Your task to perform on an android device: toggle improve location accuracy Image 0: 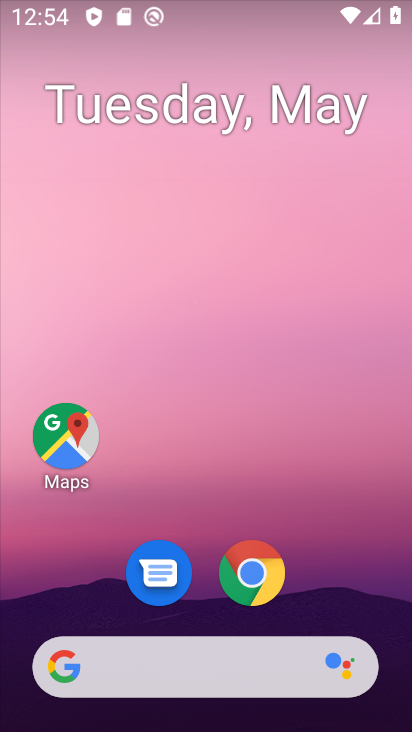
Step 0: drag from (350, 552) to (329, 55)
Your task to perform on an android device: toggle improve location accuracy Image 1: 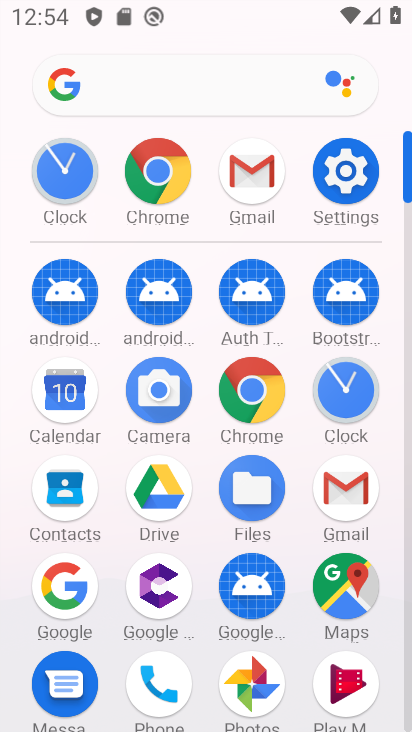
Step 1: click (360, 170)
Your task to perform on an android device: toggle improve location accuracy Image 2: 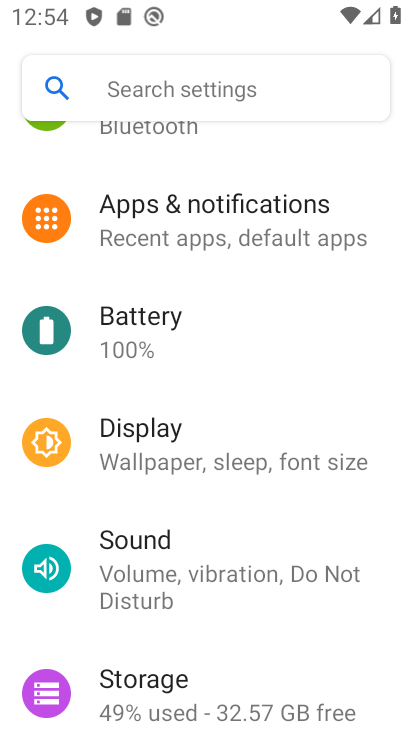
Step 2: drag from (304, 598) to (200, 120)
Your task to perform on an android device: toggle improve location accuracy Image 3: 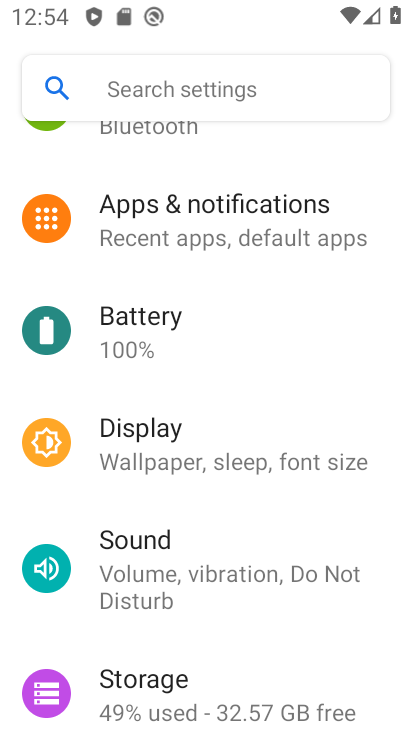
Step 3: drag from (283, 620) to (256, 194)
Your task to perform on an android device: toggle improve location accuracy Image 4: 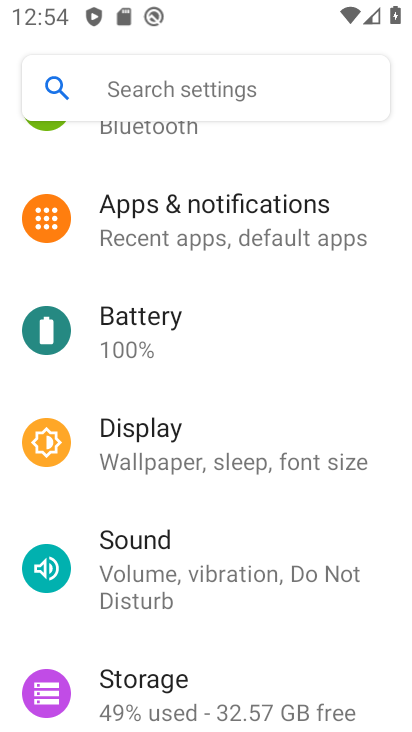
Step 4: drag from (259, 202) to (261, 574)
Your task to perform on an android device: toggle improve location accuracy Image 5: 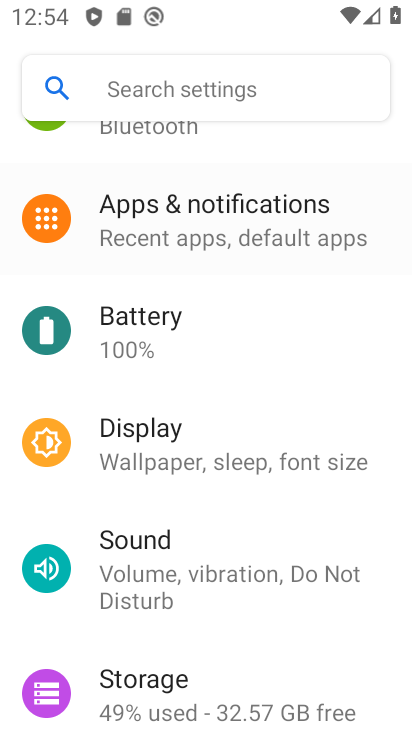
Step 5: drag from (301, 709) to (143, 240)
Your task to perform on an android device: toggle improve location accuracy Image 6: 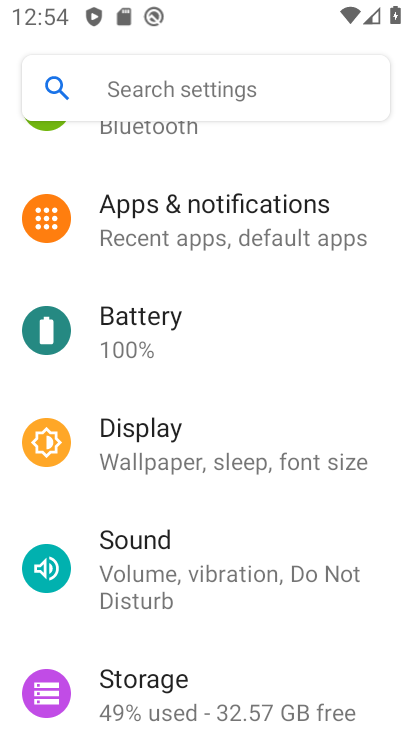
Step 6: click (216, 110)
Your task to perform on an android device: toggle improve location accuracy Image 7: 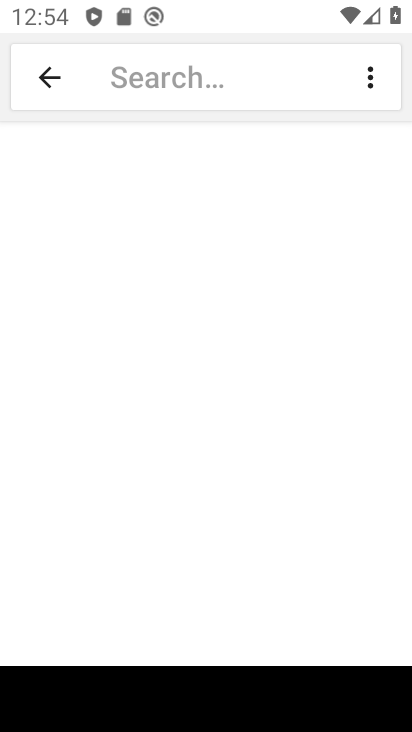
Step 7: click (51, 81)
Your task to perform on an android device: toggle improve location accuracy Image 8: 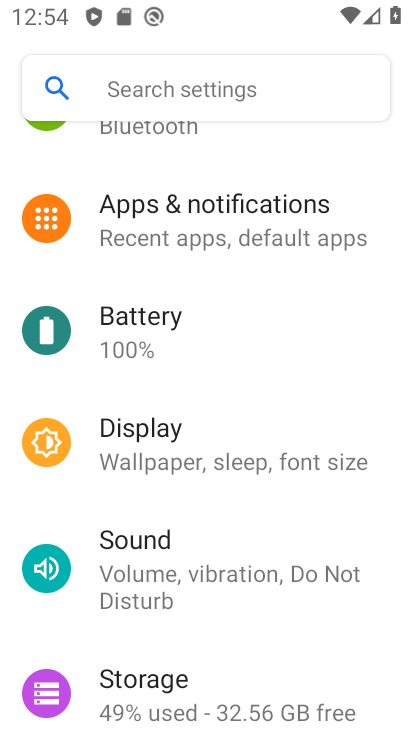
Step 8: drag from (206, 580) to (179, 198)
Your task to perform on an android device: toggle improve location accuracy Image 9: 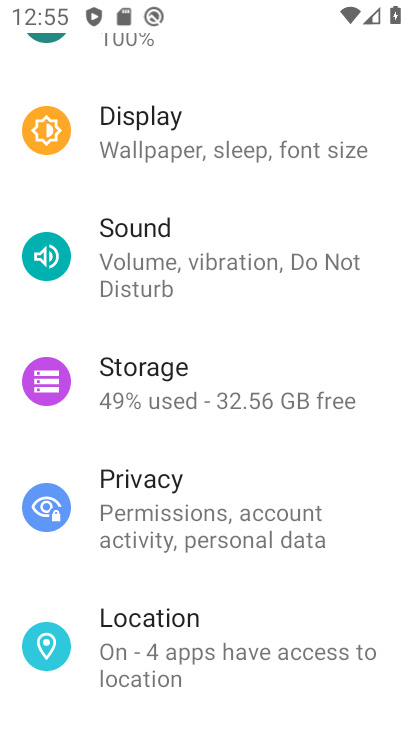
Step 9: drag from (207, 646) to (234, 258)
Your task to perform on an android device: toggle improve location accuracy Image 10: 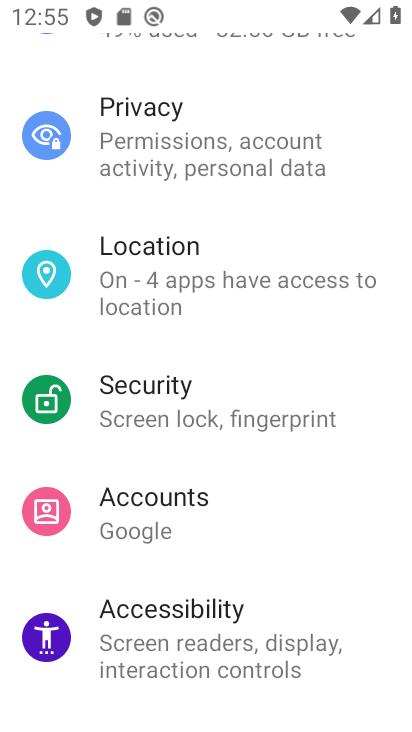
Step 10: click (222, 281)
Your task to perform on an android device: toggle improve location accuracy Image 11: 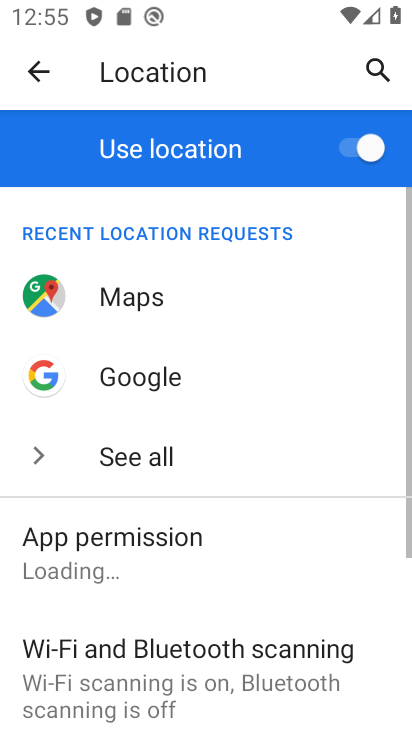
Step 11: drag from (257, 594) to (227, 208)
Your task to perform on an android device: toggle improve location accuracy Image 12: 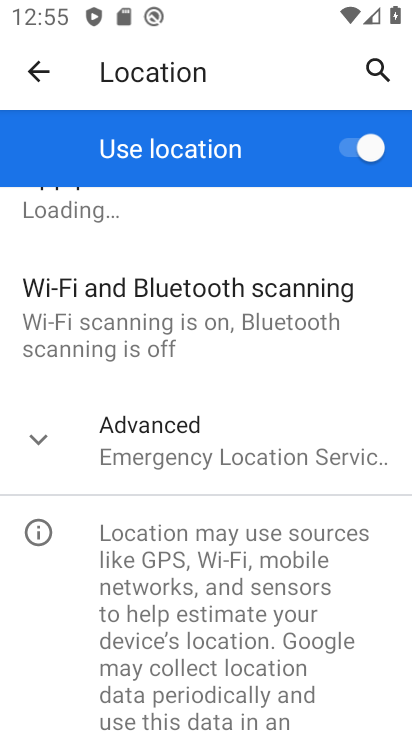
Step 12: click (215, 420)
Your task to perform on an android device: toggle improve location accuracy Image 13: 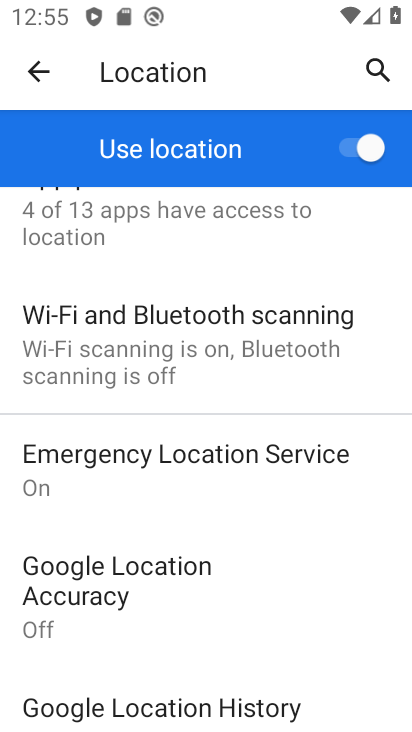
Step 13: click (146, 583)
Your task to perform on an android device: toggle improve location accuracy Image 14: 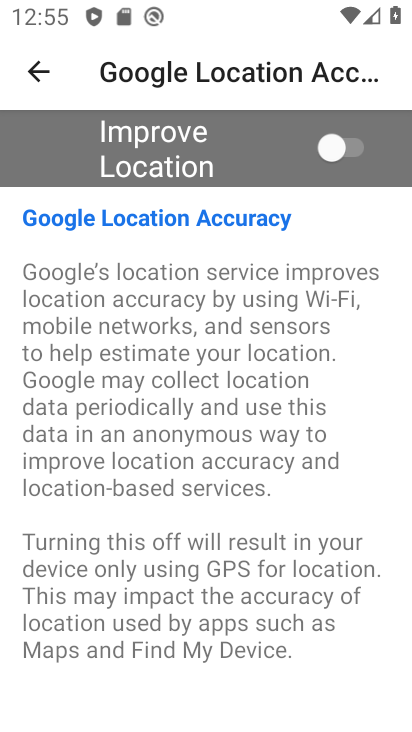
Step 14: click (313, 143)
Your task to perform on an android device: toggle improve location accuracy Image 15: 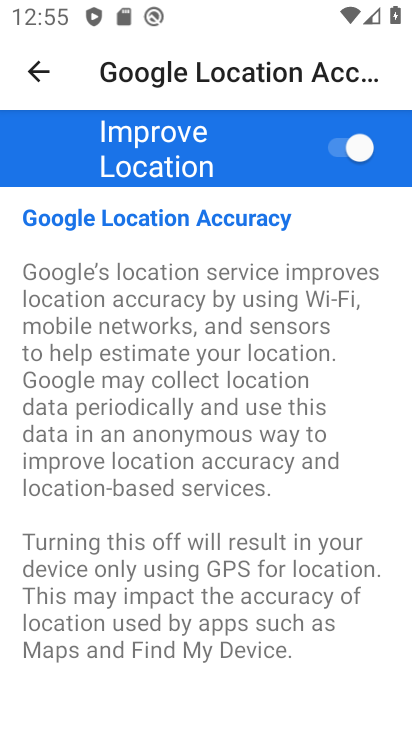
Step 15: task complete